Your task to perform on an android device: Open Chrome and go to settings Image 0: 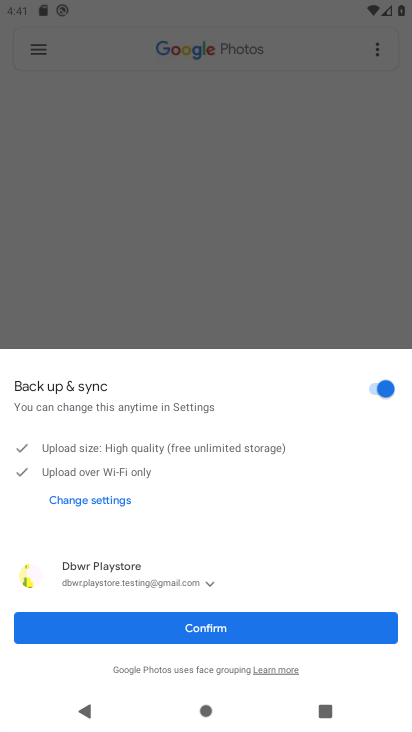
Step 0: press home button
Your task to perform on an android device: Open Chrome and go to settings Image 1: 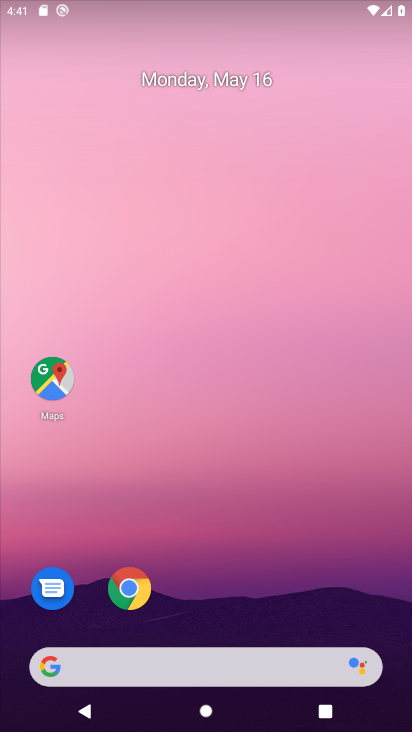
Step 1: drag from (295, 516) to (173, 85)
Your task to perform on an android device: Open Chrome and go to settings Image 2: 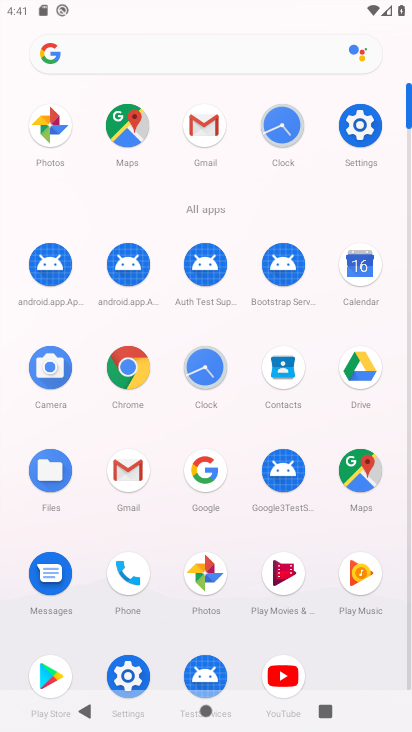
Step 2: click (129, 365)
Your task to perform on an android device: Open Chrome and go to settings Image 3: 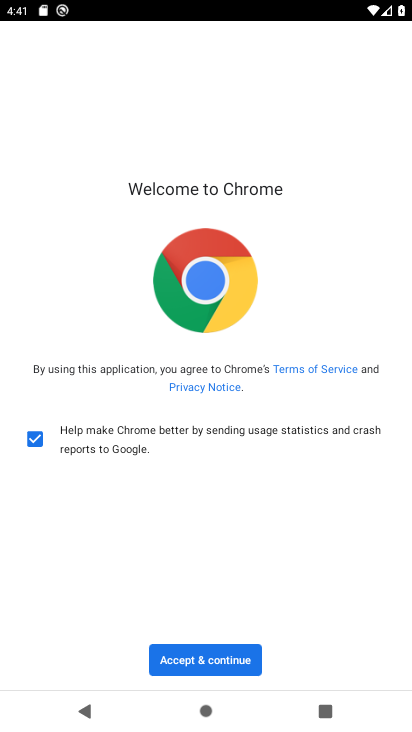
Step 3: click (222, 666)
Your task to perform on an android device: Open Chrome and go to settings Image 4: 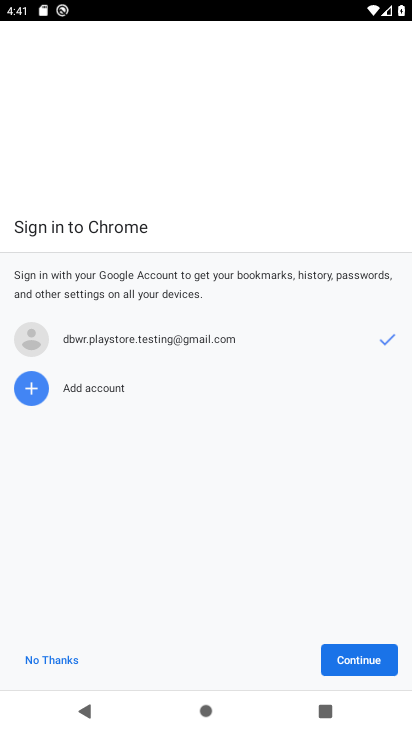
Step 4: click (352, 656)
Your task to perform on an android device: Open Chrome and go to settings Image 5: 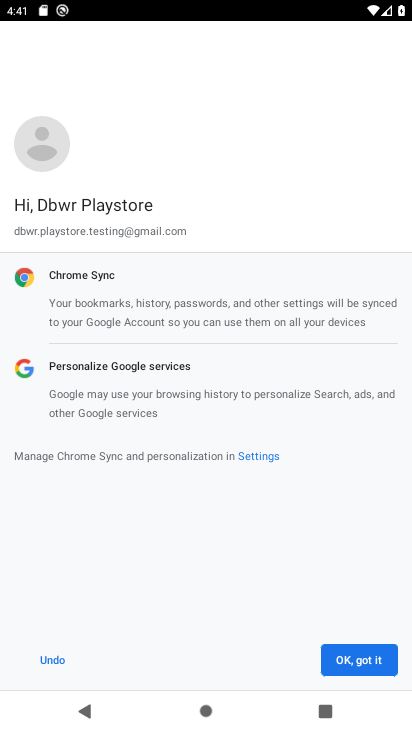
Step 5: click (366, 662)
Your task to perform on an android device: Open Chrome and go to settings Image 6: 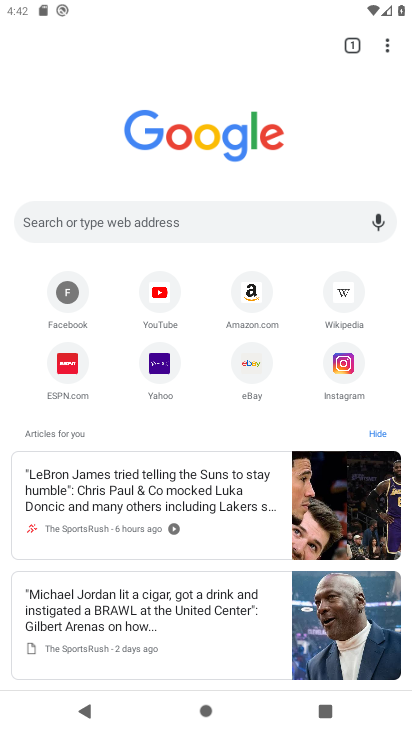
Step 6: click (390, 48)
Your task to perform on an android device: Open Chrome and go to settings Image 7: 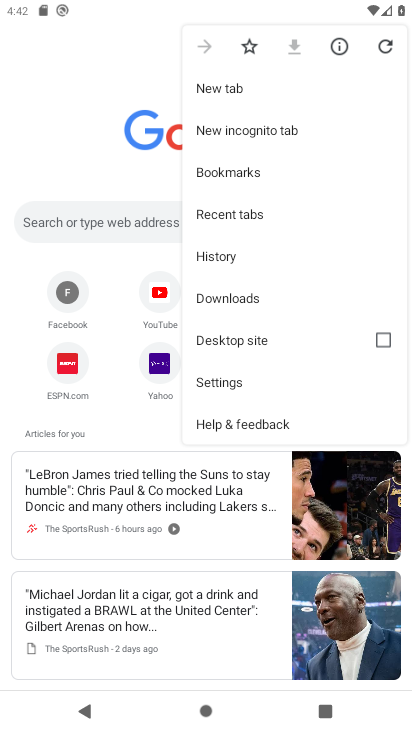
Step 7: click (310, 384)
Your task to perform on an android device: Open Chrome and go to settings Image 8: 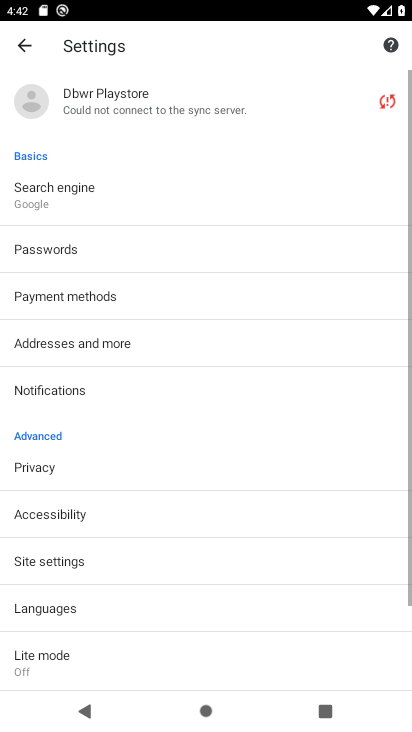
Step 8: task complete